Your task to perform on an android device: When is my next appointment? Image 0: 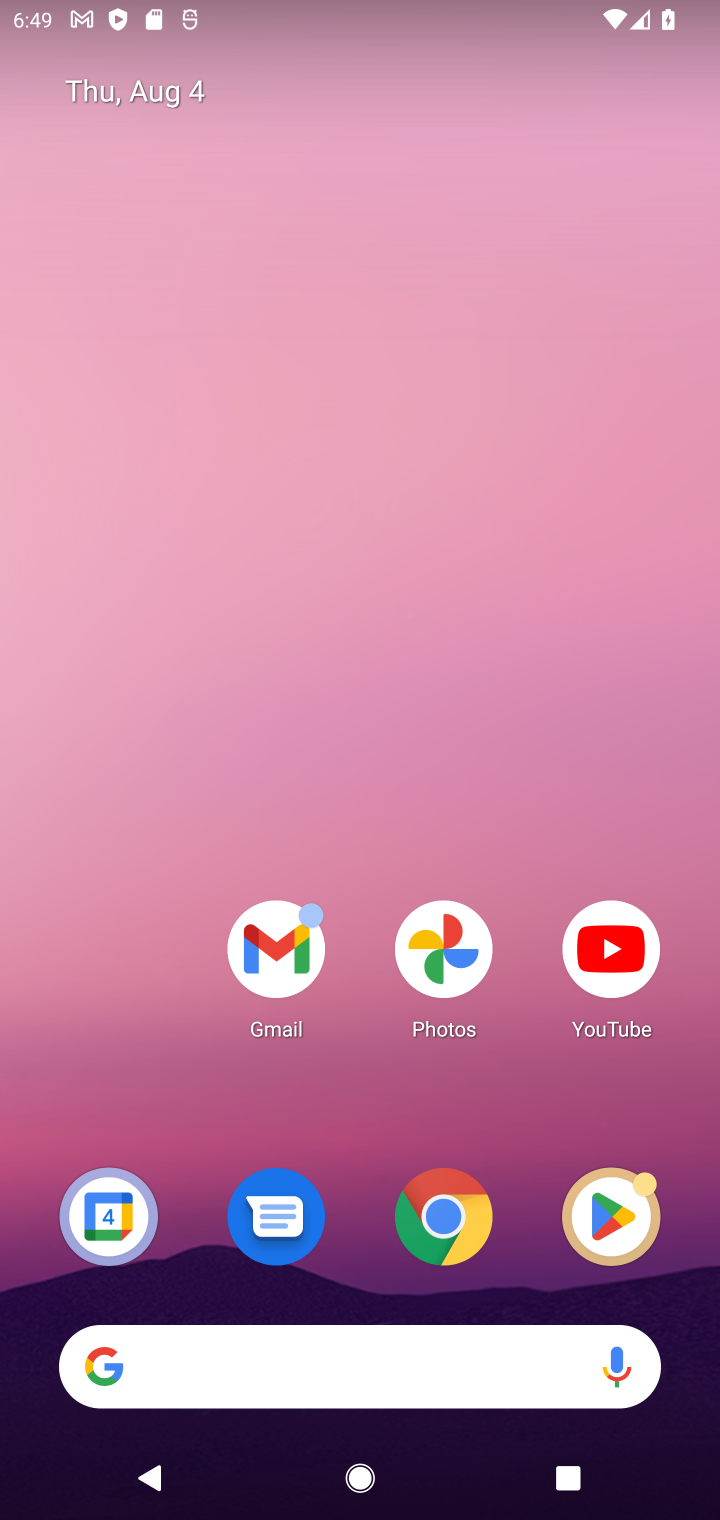
Step 0: drag from (366, 764) to (366, 257)
Your task to perform on an android device: When is my next appointment? Image 1: 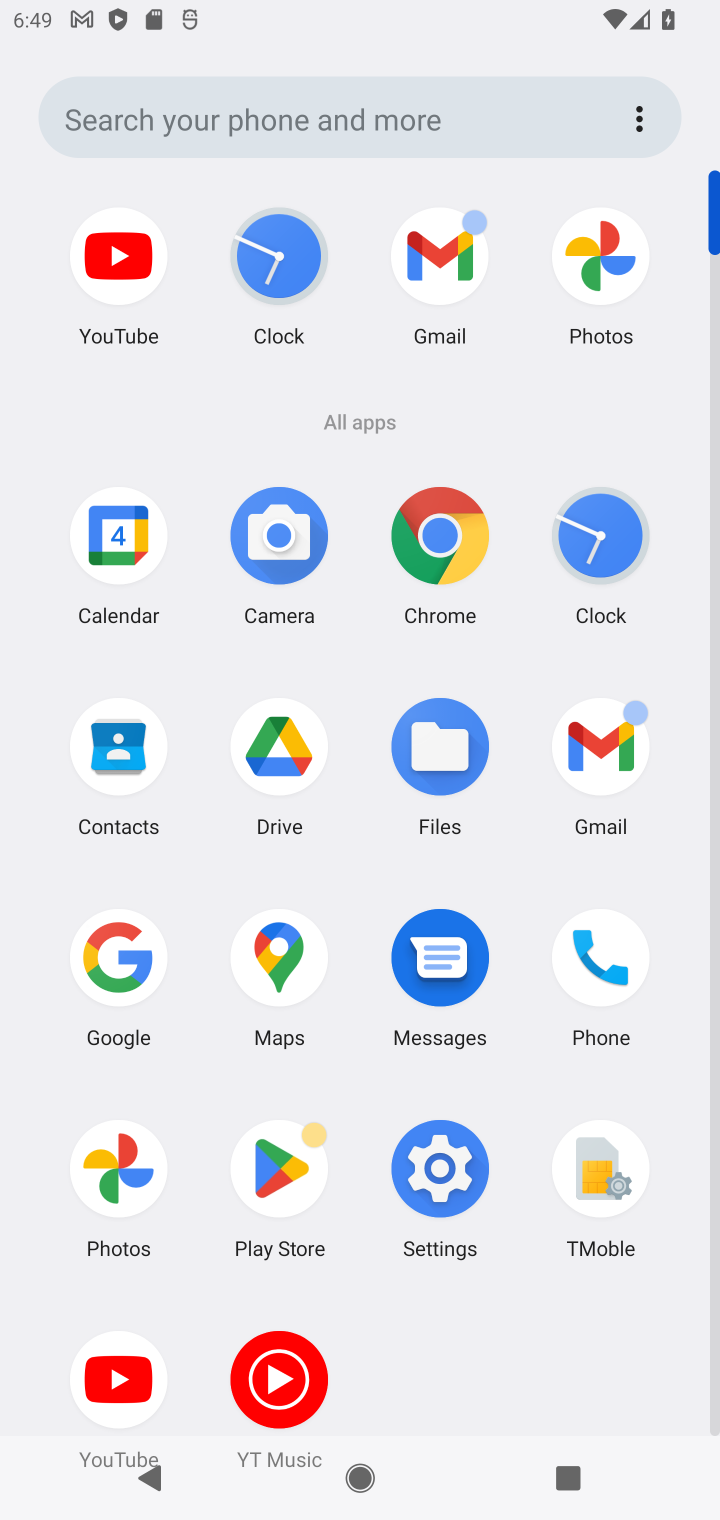
Step 1: click (118, 537)
Your task to perform on an android device: When is my next appointment? Image 2: 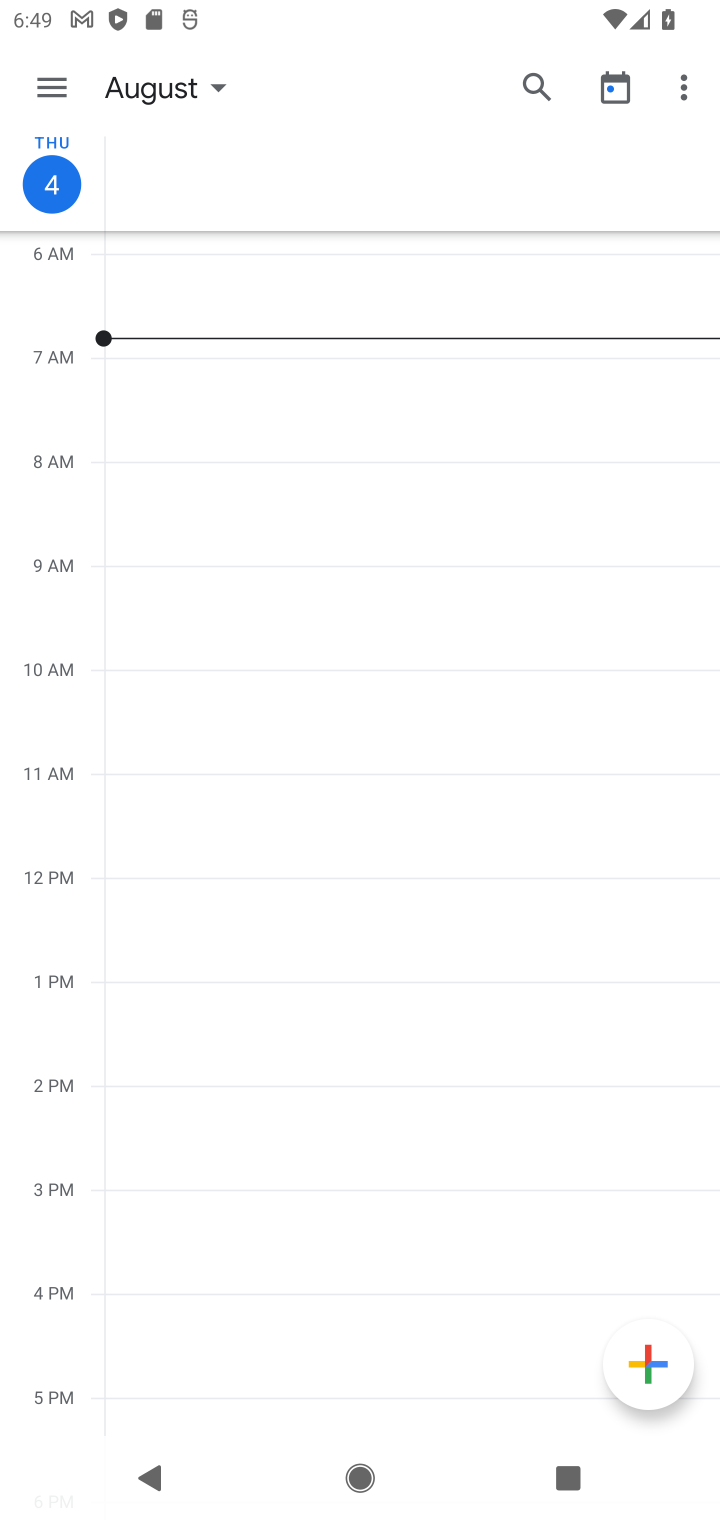
Step 2: click (215, 83)
Your task to perform on an android device: When is my next appointment? Image 3: 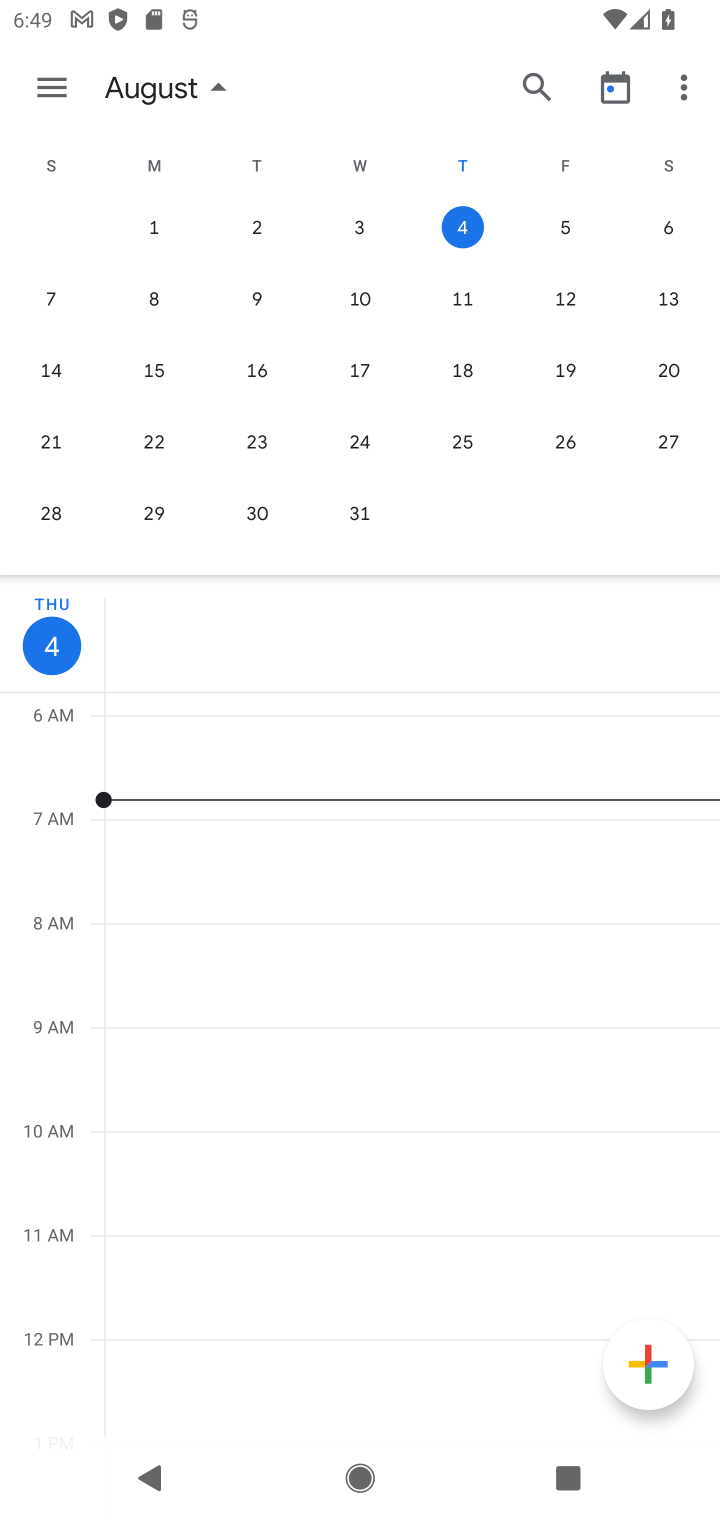
Step 3: click (563, 226)
Your task to perform on an android device: When is my next appointment? Image 4: 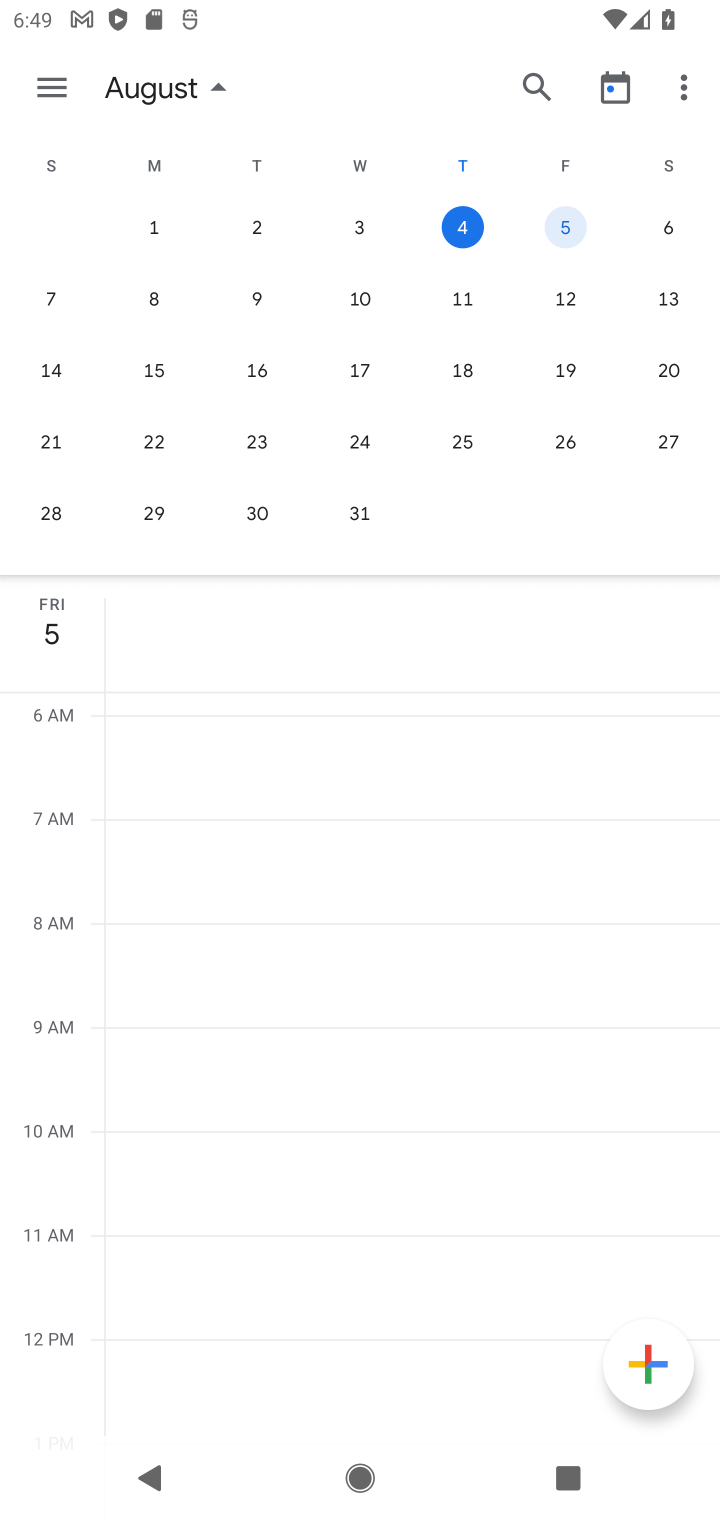
Step 4: click (563, 230)
Your task to perform on an android device: When is my next appointment? Image 5: 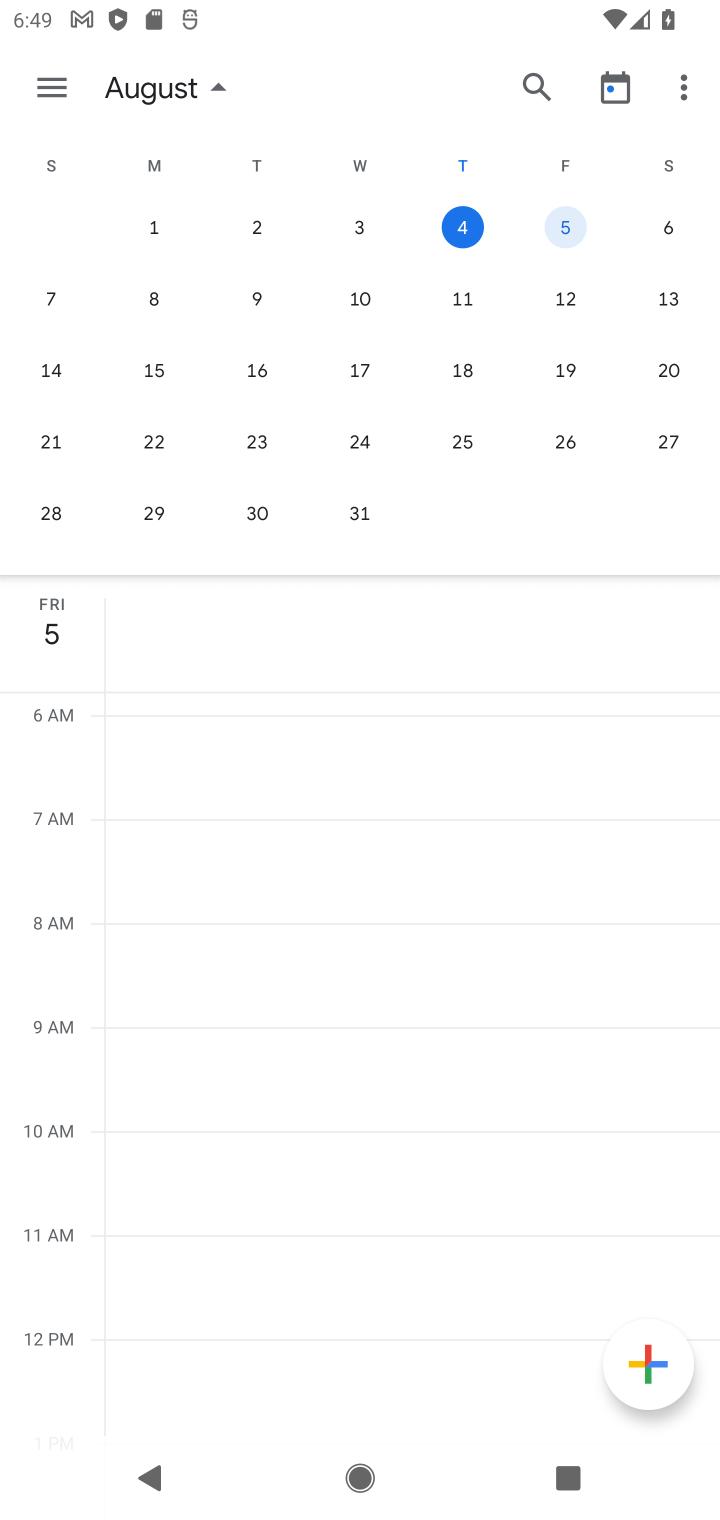
Step 5: task complete